Your task to perform on an android device: toggle location history Image 0: 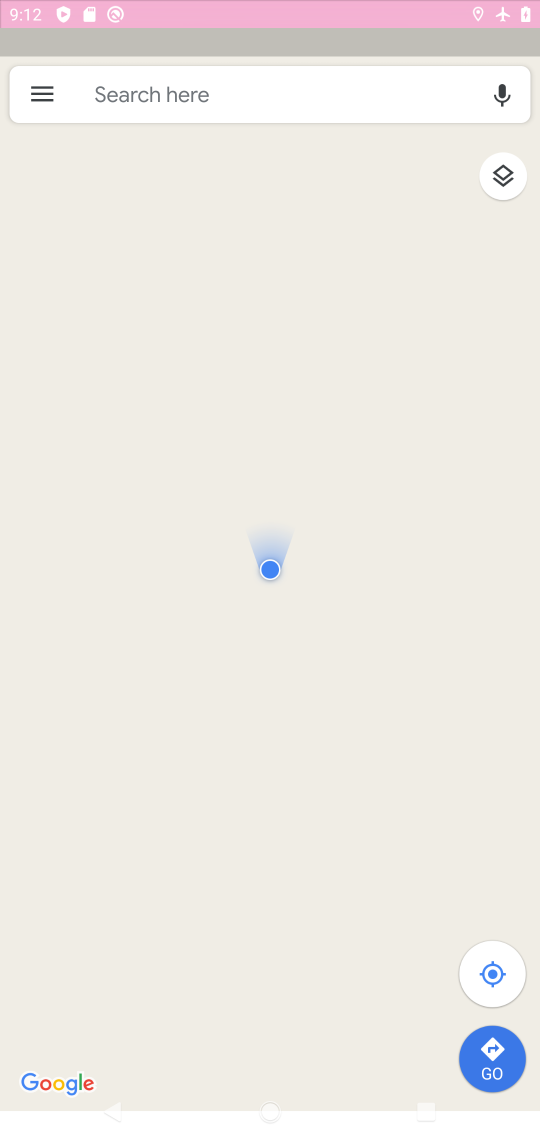
Step 0: press back button
Your task to perform on an android device: toggle location history Image 1: 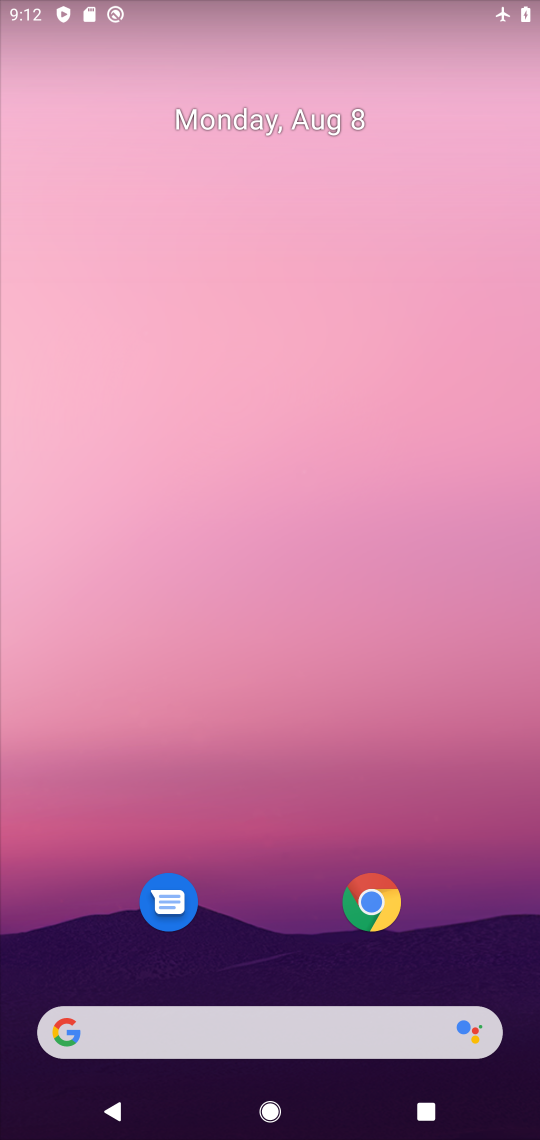
Step 1: drag from (320, 949) to (353, 279)
Your task to perform on an android device: toggle location history Image 2: 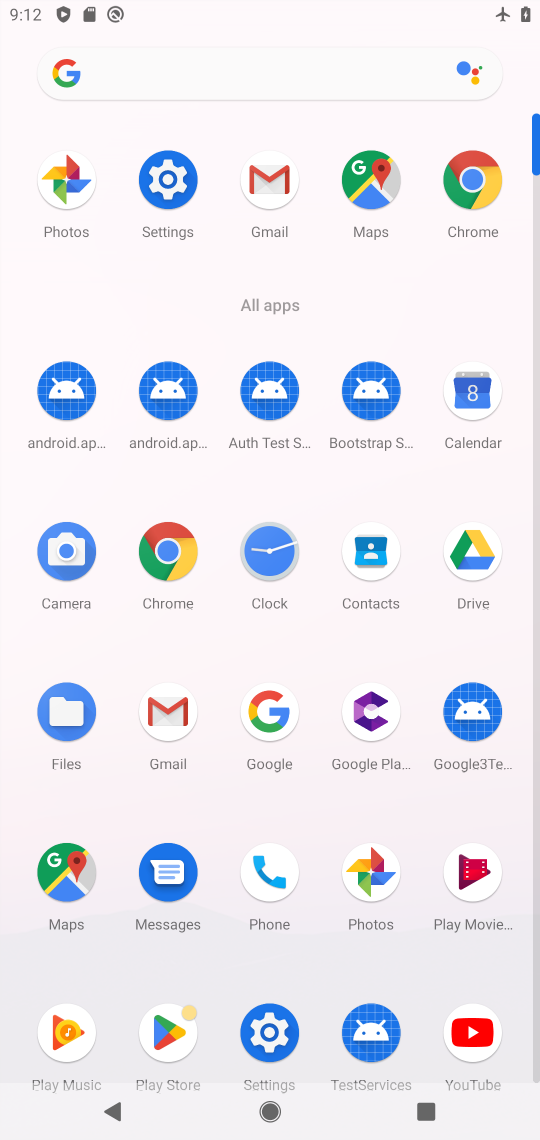
Step 2: click (164, 206)
Your task to perform on an android device: toggle location history Image 3: 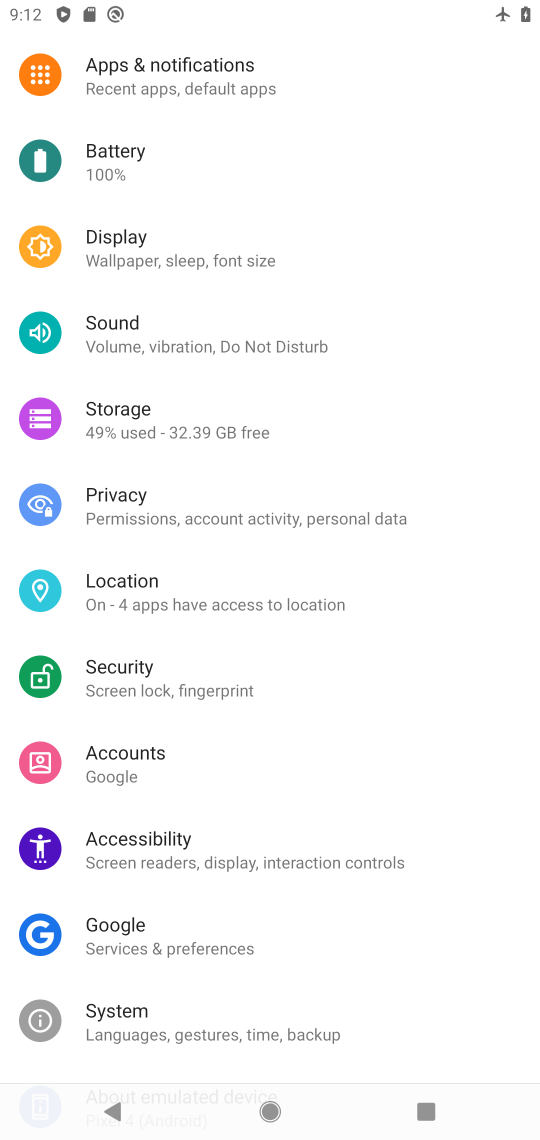
Step 3: click (155, 566)
Your task to perform on an android device: toggle location history Image 4: 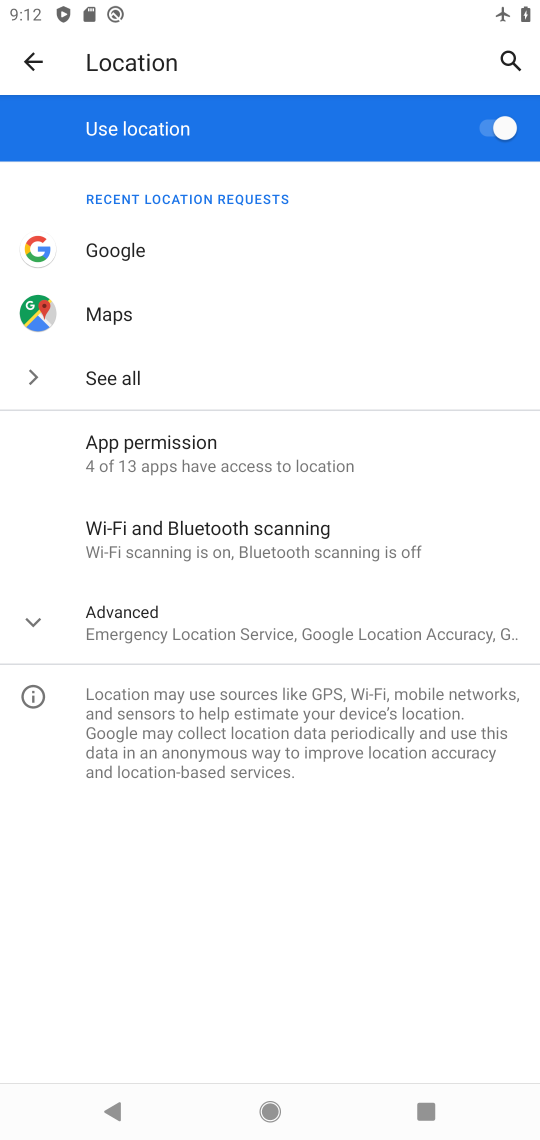
Step 4: click (154, 613)
Your task to perform on an android device: toggle location history Image 5: 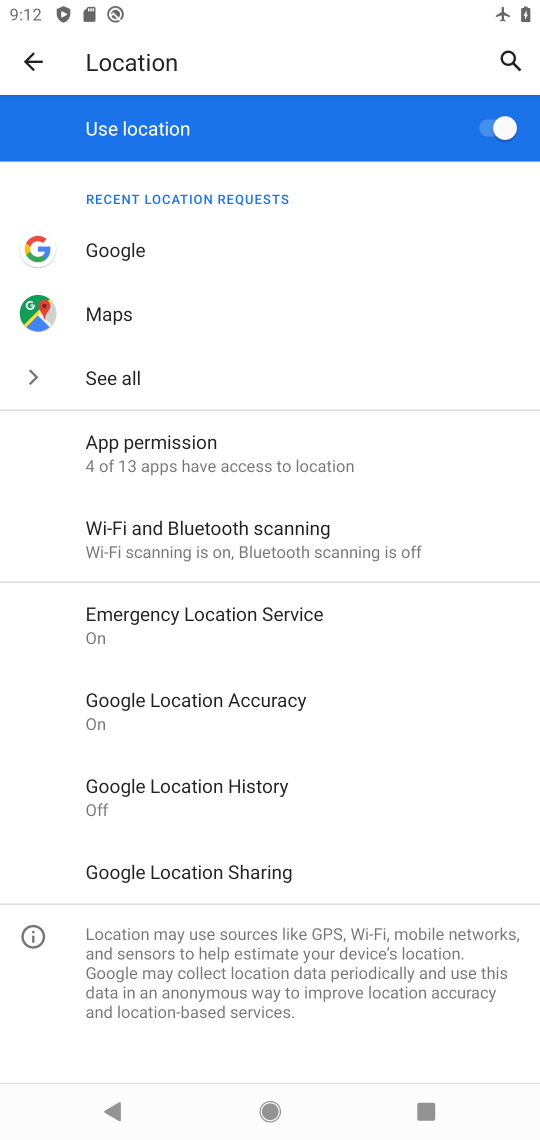
Step 5: click (251, 773)
Your task to perform on an android device: toggle location history Image 6: 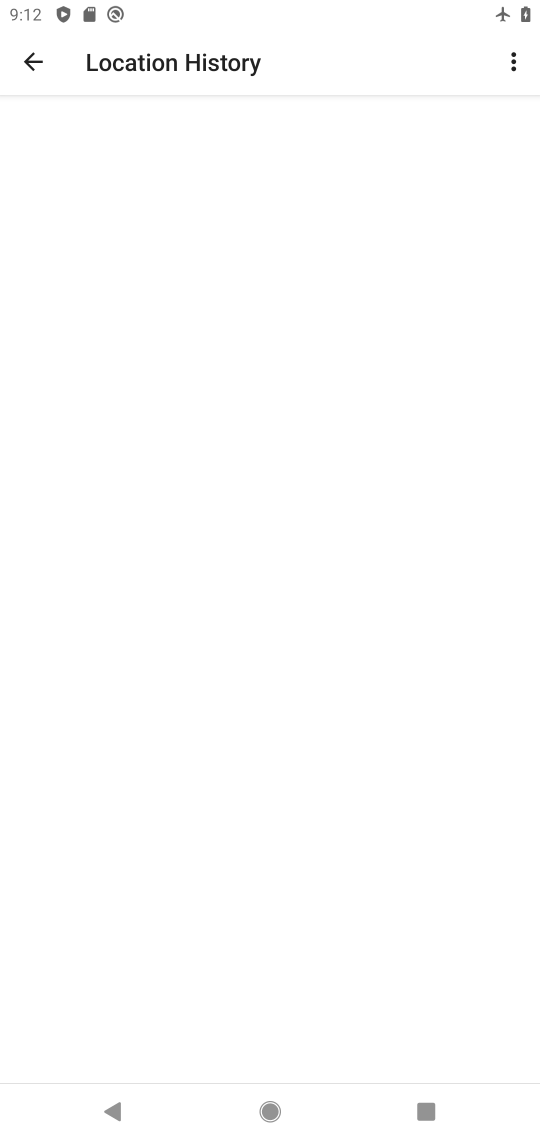
Step 6: task complete